Your task to perform on an android device: find photos in the google photos app Image 0: 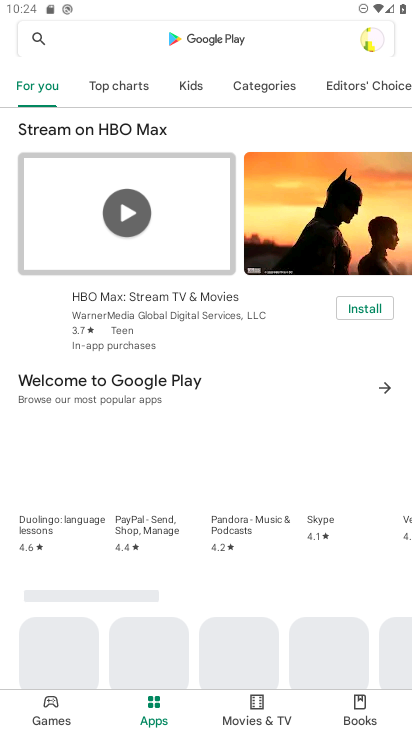
Step 0: press home button
Your task to perform on an android device: find photos in the google photos app Image 1: 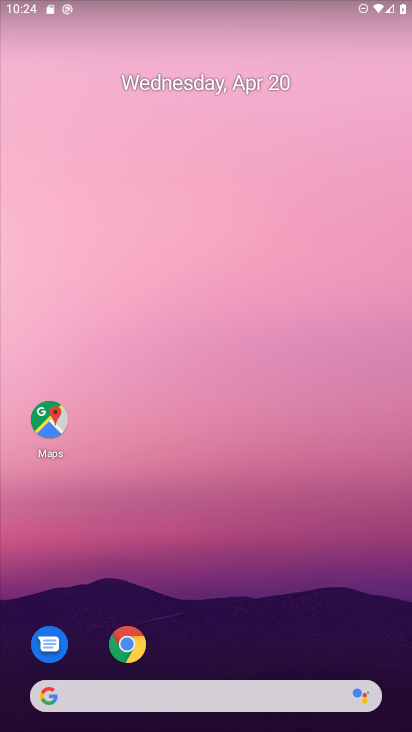
Step 1: drag from (287, 631) to (220, 109)
Your task to perform on an android device: find photos in the google photos app Image 2: 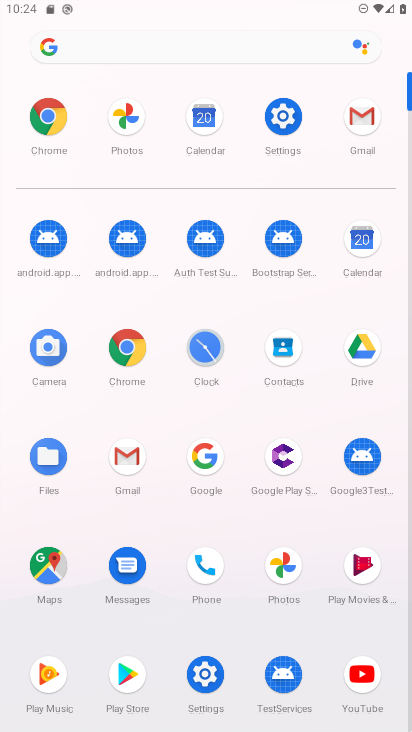
Step 2: click (283, 554)
Your task to perform on an android device: find photos in the google photos app Image 3: 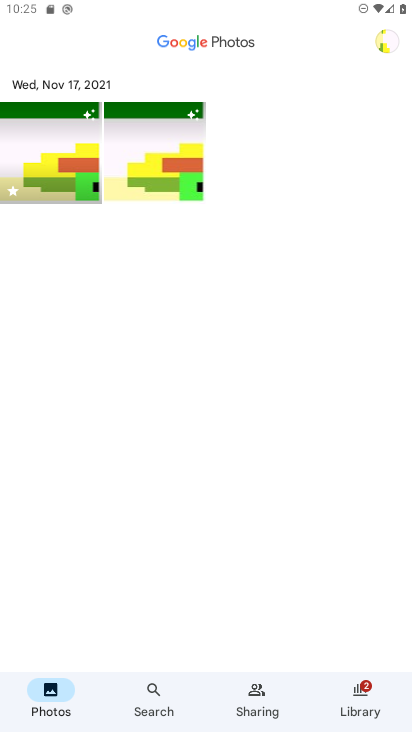
Step 3: task complete